Your task to perform on an android device: When is my next meeting? Image 0: 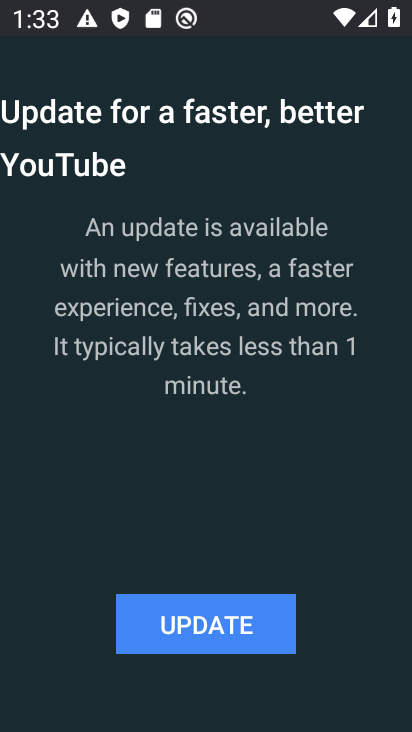
Step 0: press home button
Your task to perform on an android device: When is my next meeting? Image 1: 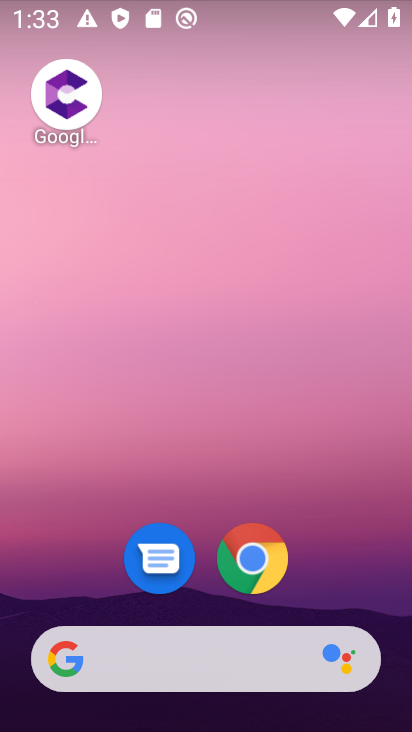
Step 1: drag from (193, 461) to (194, 76)
Your task to perform on an android device: When is my next meeting? Image 2: 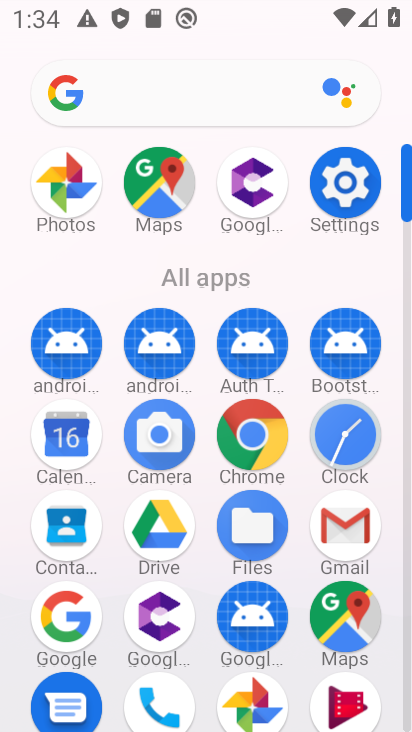
Step 2: click (69, 455)
Your task to perform on an android device: When is my next meeting? Image 3: 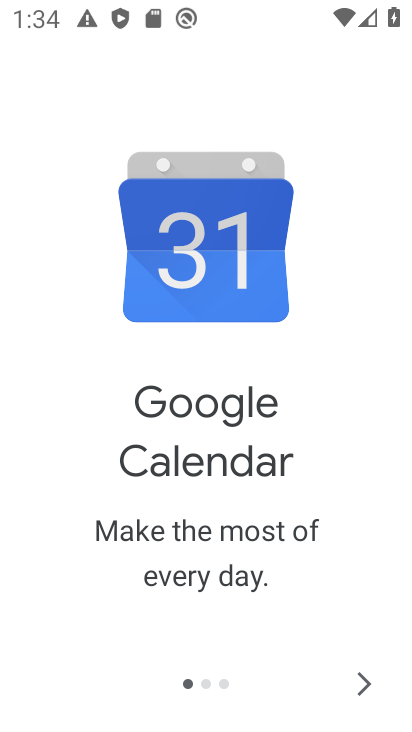
Step 3: click (363, 679)
Your task to perform on an android device: When is my next meeting? Image 4: 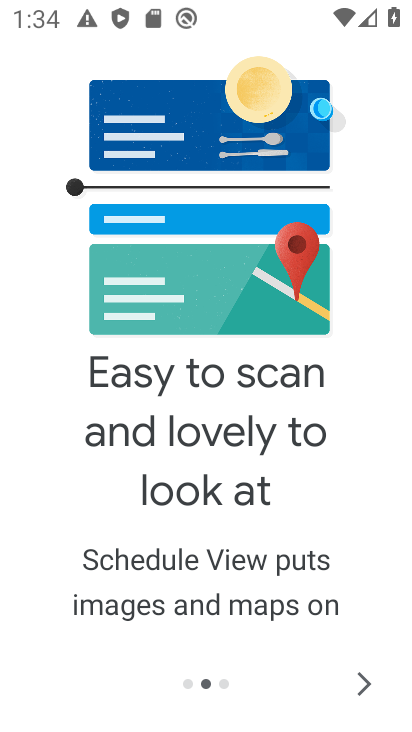
Step 4: click (363, 679)
Your task to perform on an android device: When is my next meeting? Image 5: 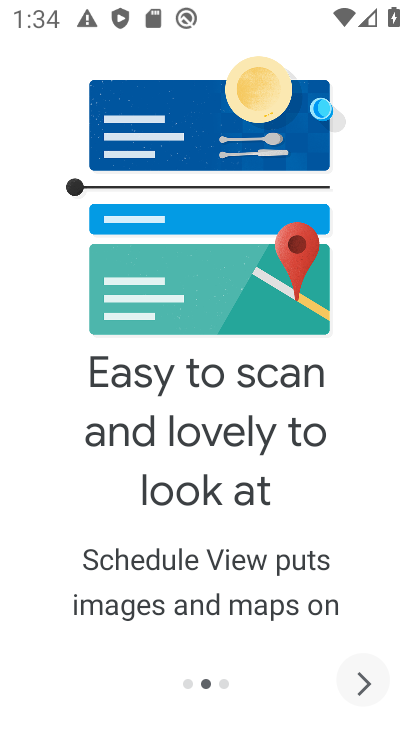
Step 5: click (363, 679)
Your task to perform on an android device: When is my next meeting? Image 6: 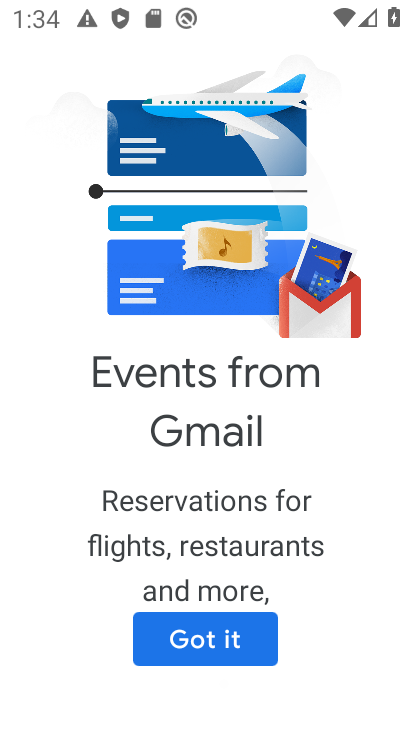
Step 6: click (363, 679)
Your task to perform on an android device: When is my next meeting? Image 7: 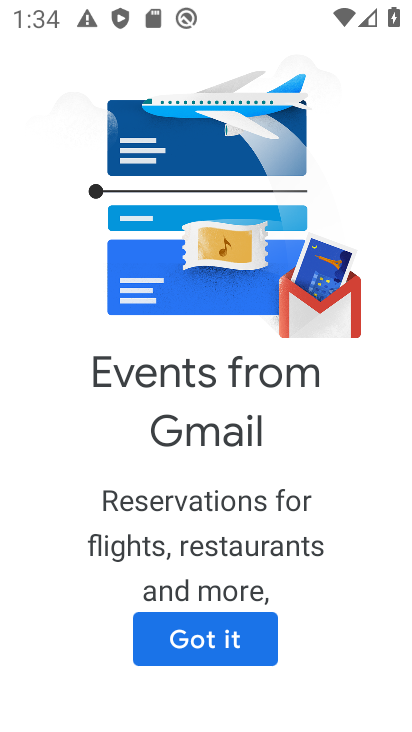
Step 7: click (173, 656)
Your task to perform on an android device: When is my next meeting? Image 8: 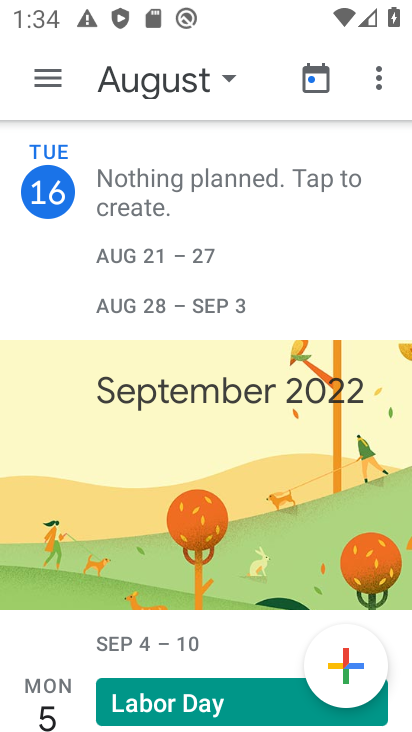
Step 8: click (225, 70)
Your task to perform on an android device: When is my next meeting? Image 9: 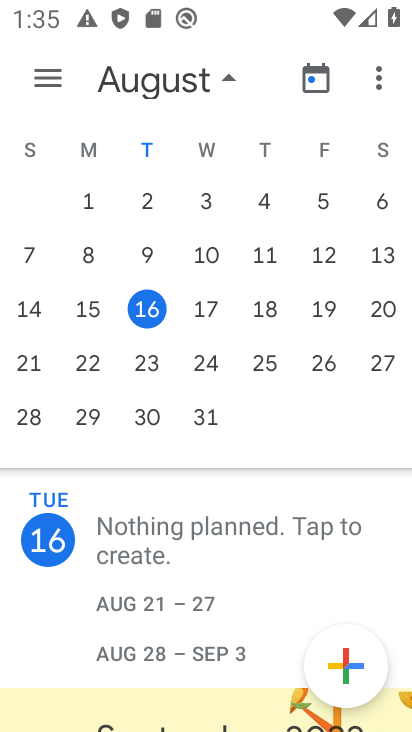
Step 9: click (202, 321)
Your task to perform on an android device: When is my next meeting? Image 10: 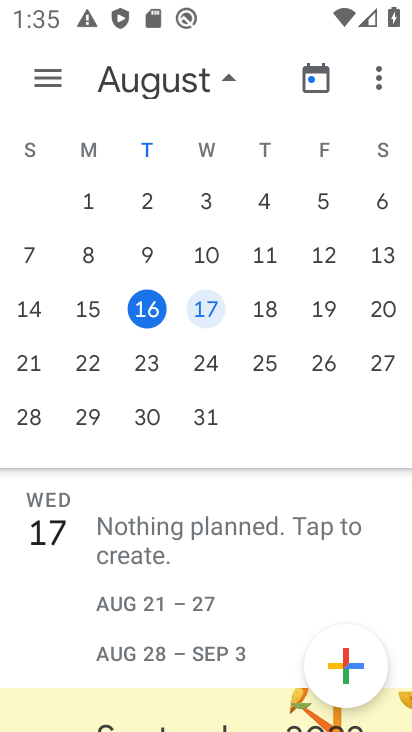
Step 10: click (255, 312)
Your task to perform on an android device: When is my next meeting? Image 11: 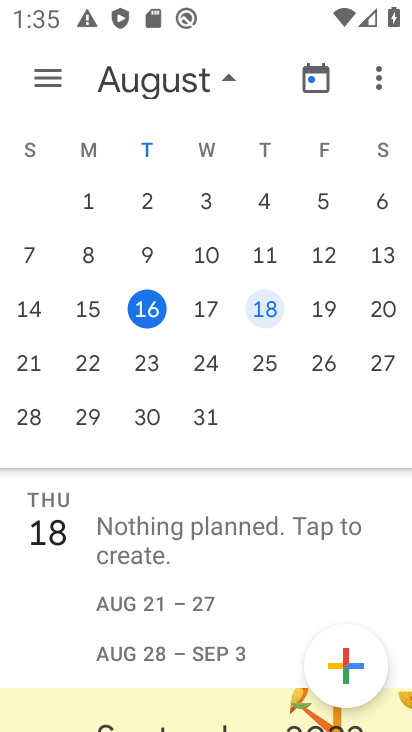
Step 11: click (325, 313)
Your task to perform on an android device: When is my next meeting? Image 12: 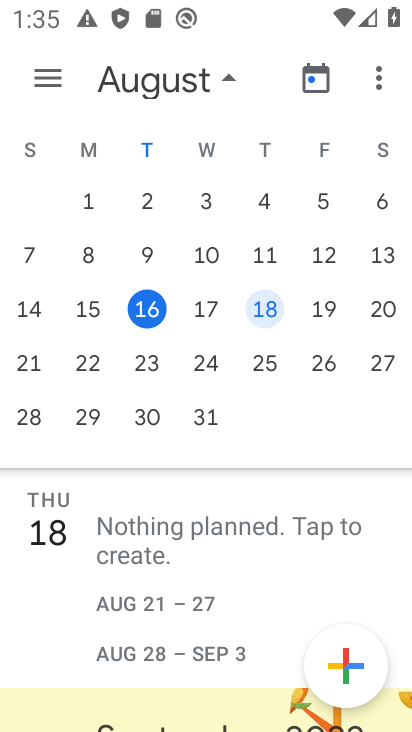
Step 12: click (343, 311)
Your task to perform on an android device: When is my next meeting? Image 13: 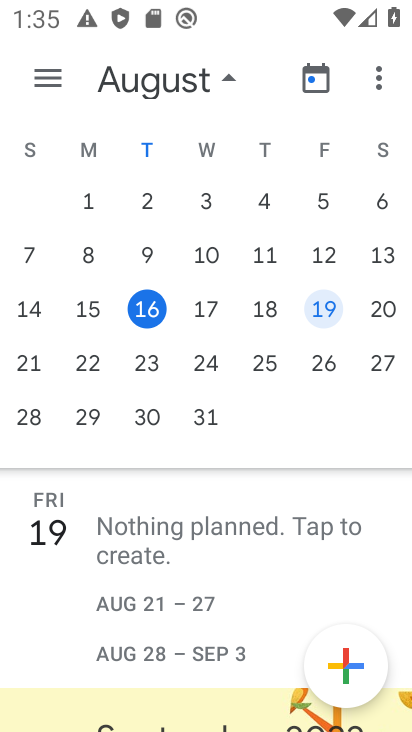
Step 13: task complete